Your task to perform on an android device: How much does a 2 bedroom apartment rent for in Boston? Image 0: 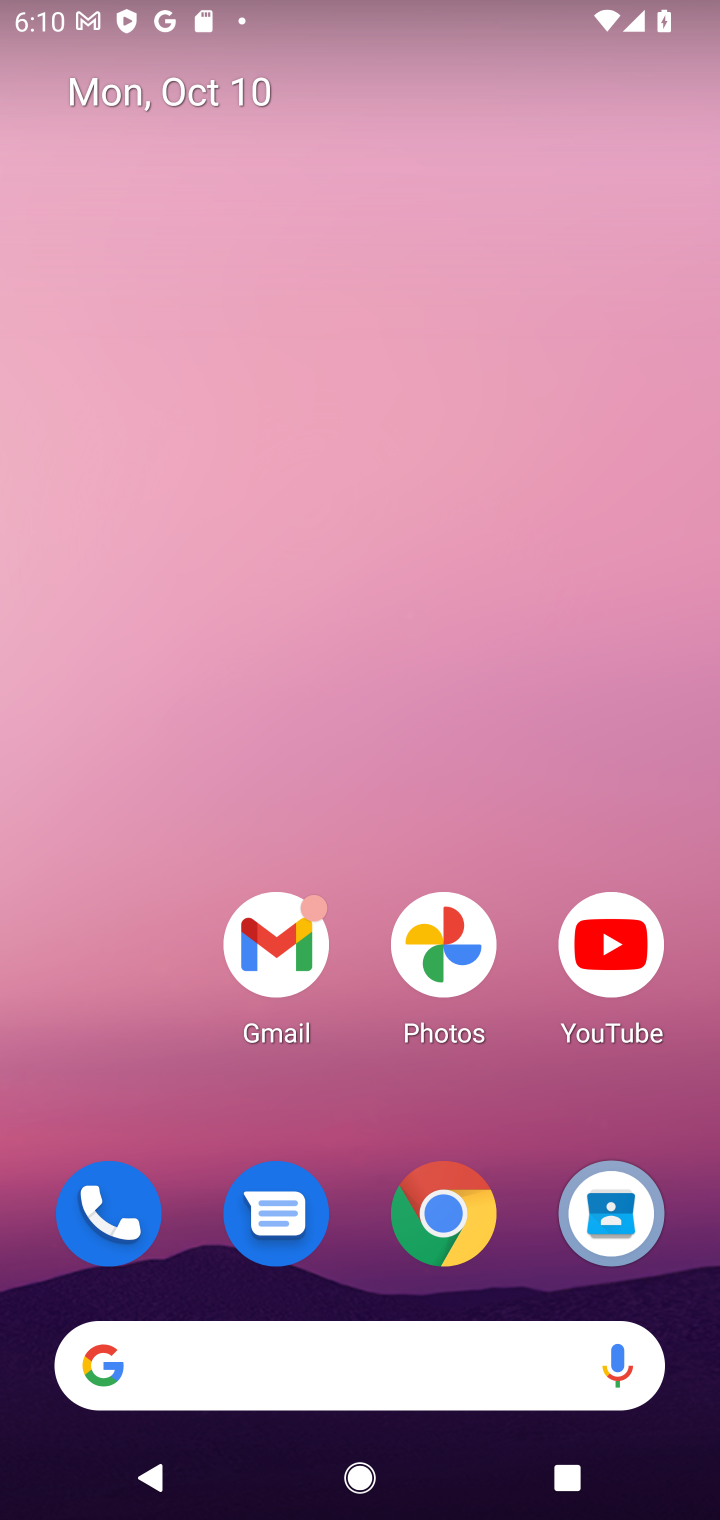
Step 0: click (386, 1373)
Your task to perform on an android device: How much does a 2 bedroom apartment rent for in Boston? Image 1: 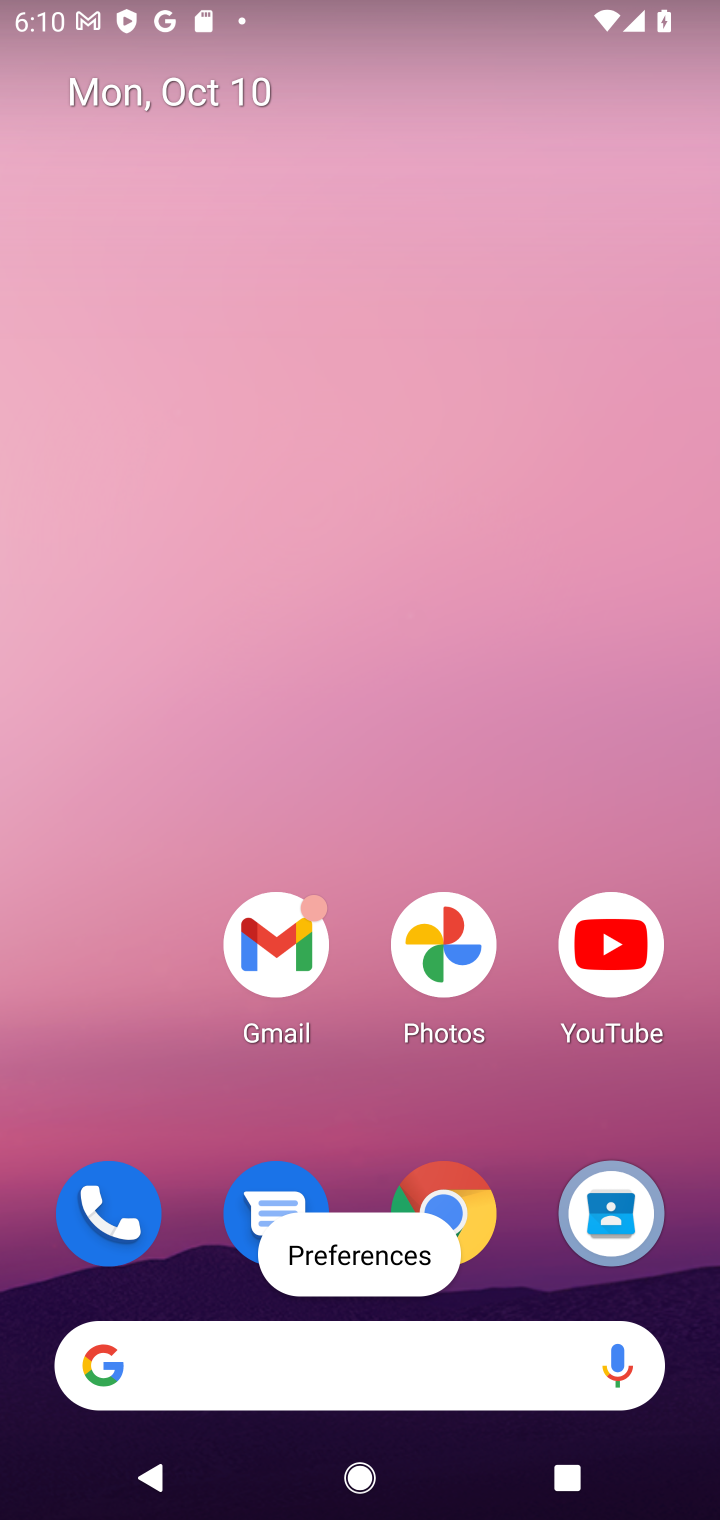
Step 1: click (380, 1389)
Your task to perform on an android device: How much does a 2 bedroom apartment rent for in Boston? Image 2: 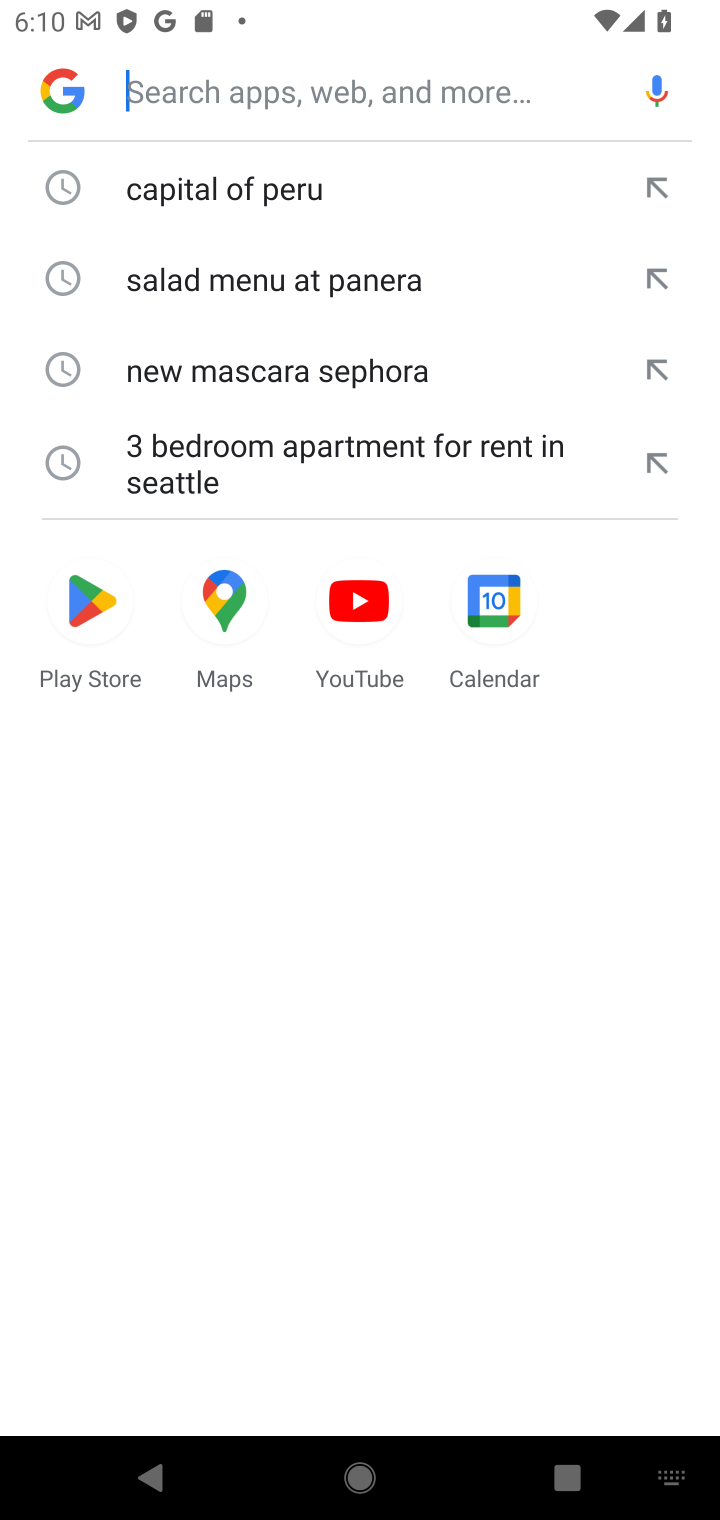
Step 2: type "2 bedroom apartment rent for in Boston"
Your task to perform on an android device: How much does a 2 bedroom apartment rent for in Boston? Image 3: 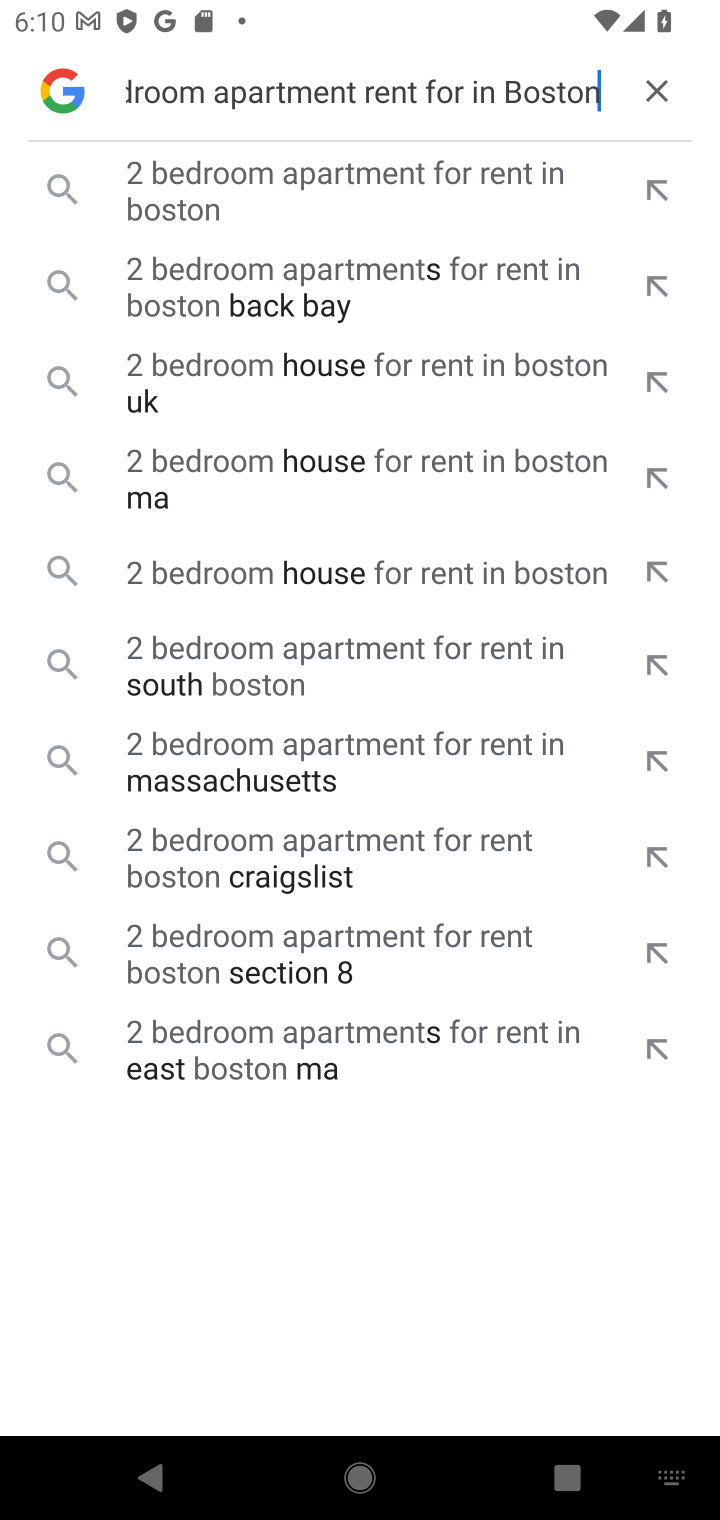
Step 3: click (194, 194)
Your task to perform on an android device: How much does a 2 bedroom apartment rent for in Boston? Image 4: 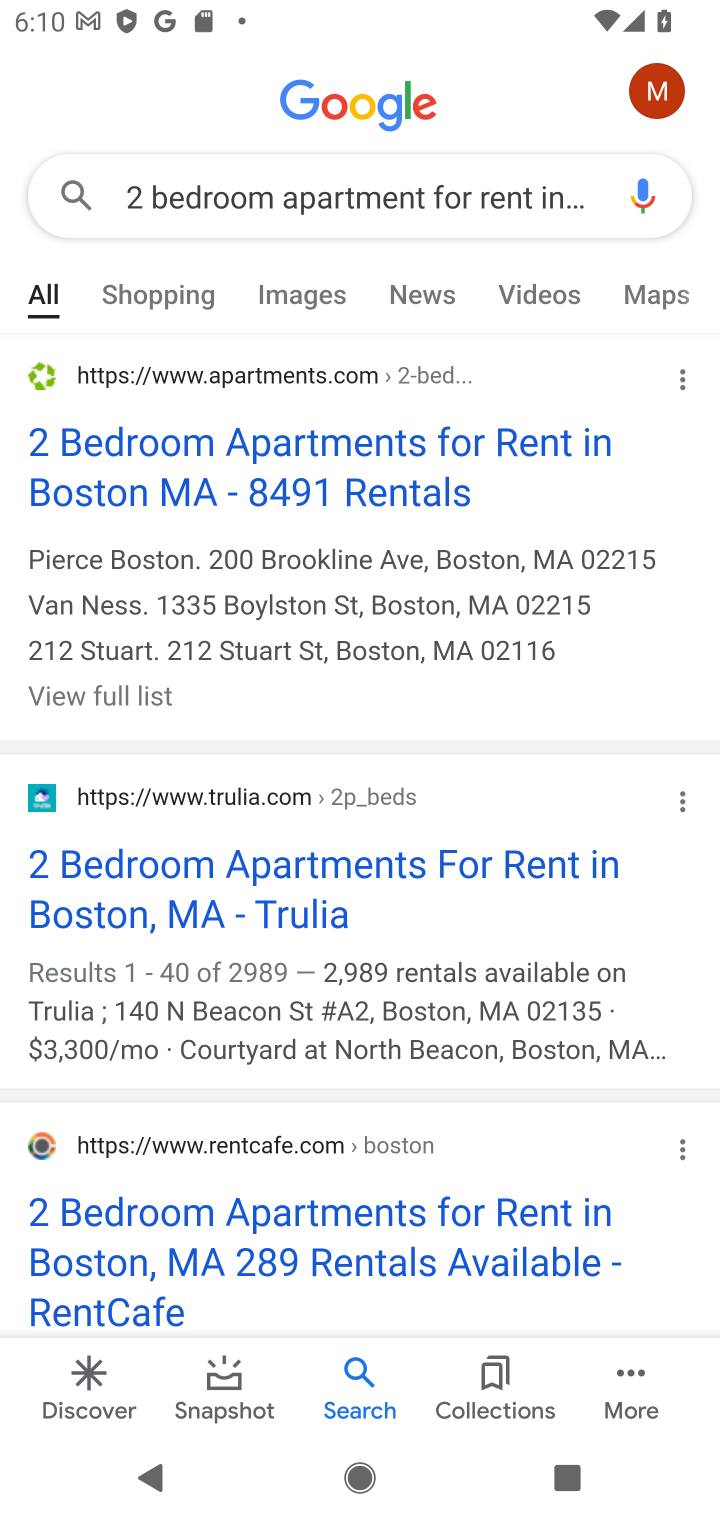
Step 4: click (267, 482)
Your task to perform on an android device: How much does a 2 bedroom apartment rent for in Boston? Image 5: 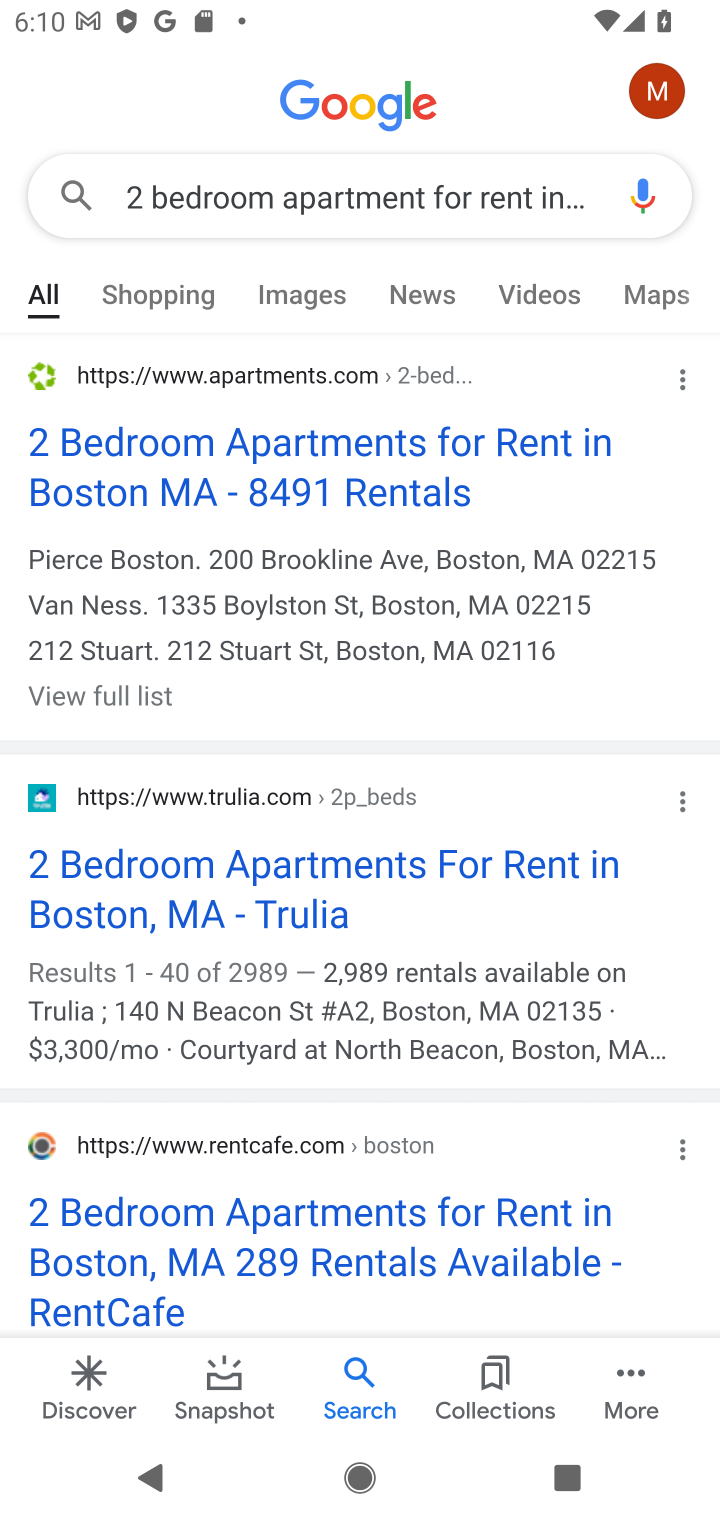
Step 5: click (272, 487)
Your task to perform on an android device: How much does a 2 bedroom apartment rent for in Boston? Image 6: 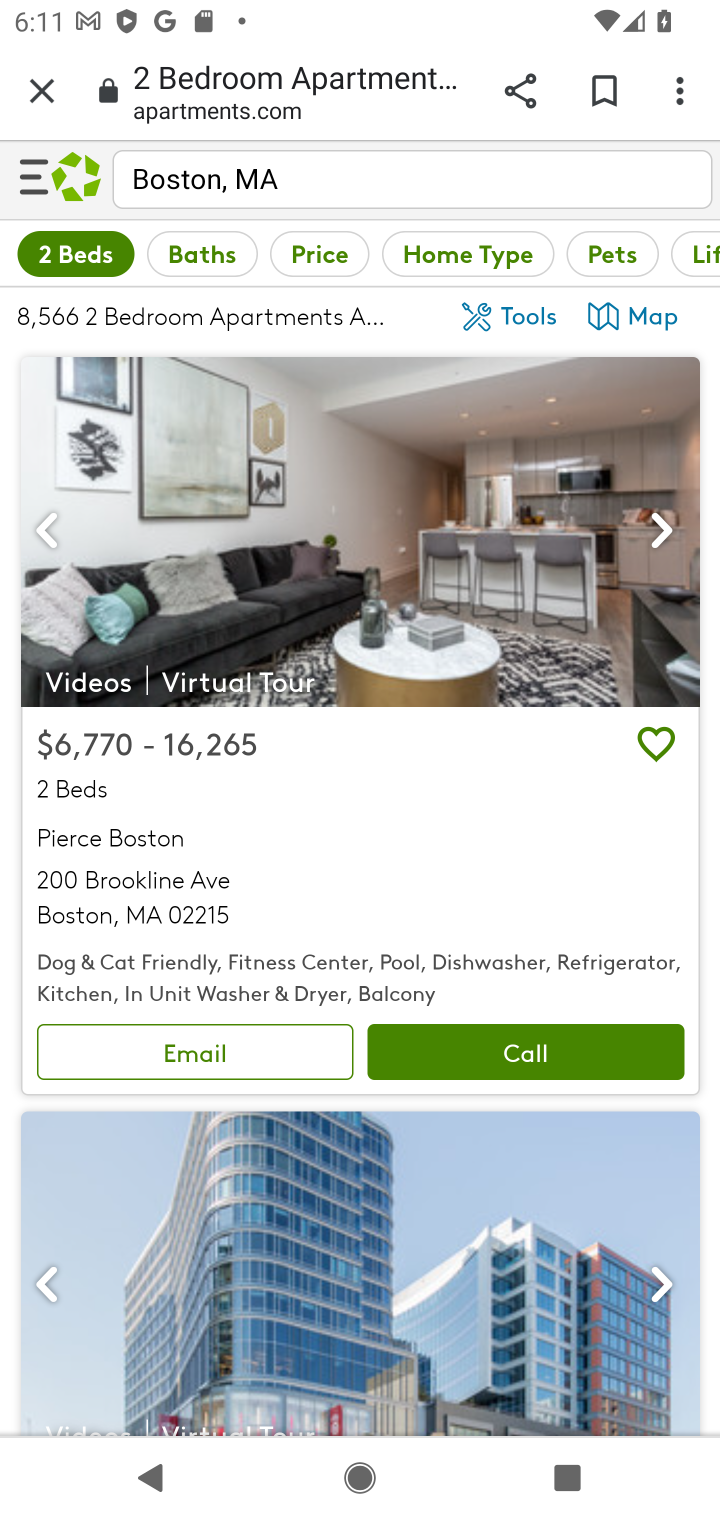
Step 6: task complete